Your task to perform on an android device: When is my next appointment? Image 0: 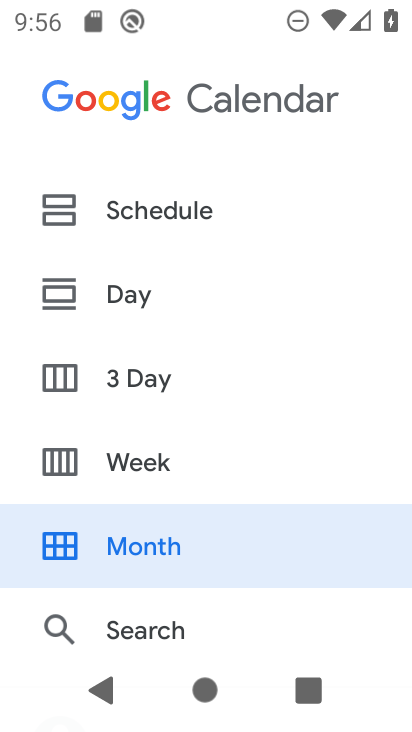
Step 0: press home button
Your task to perform on an android device: When is my next appointment? Image 1: 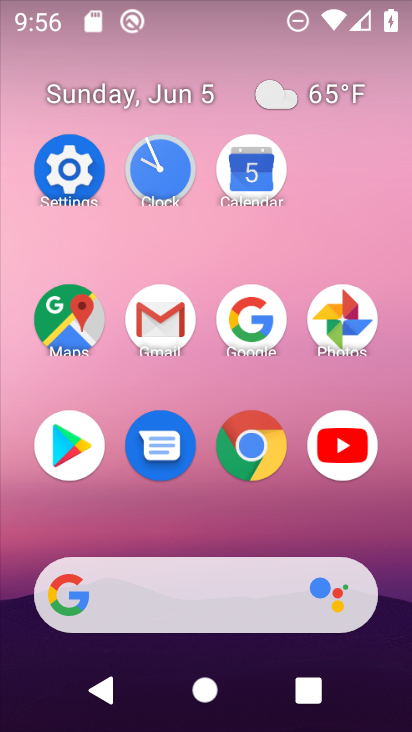
Step 1: click (268, 192)
Your task to perform on an android device: When is my next appointment? Image 2: 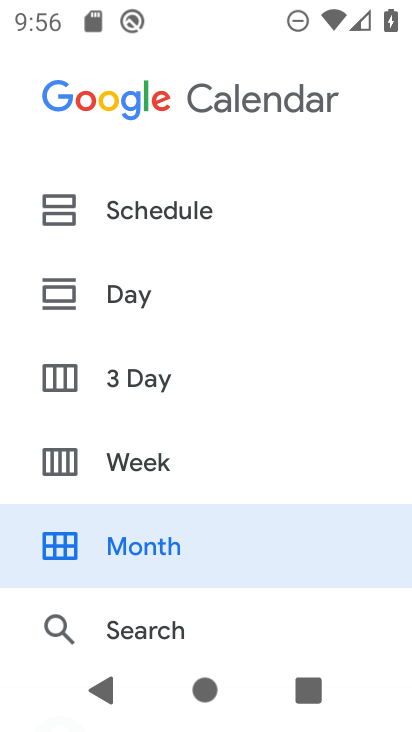
Step 2: click (240, 519)
Your task to perform on an android device: When is my next appointment? Image 3: 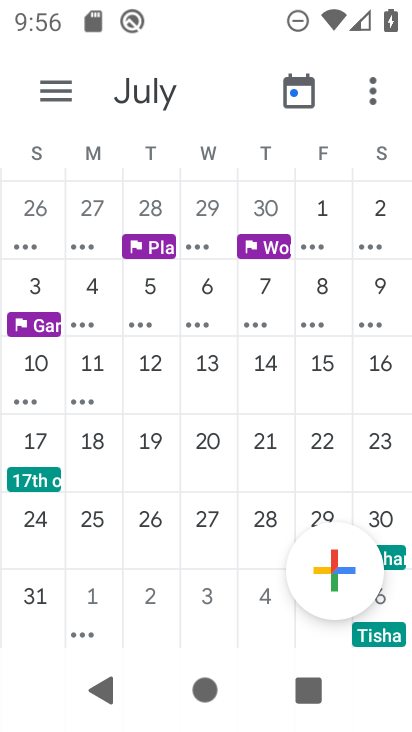
Step 3: click (148, 105)
Your task to perform on an android device: When is my next appointment? Image 4: 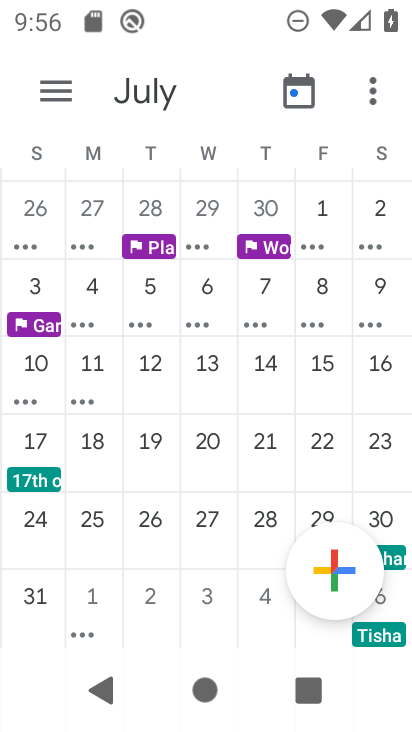
Step 4: click (121, 85)
Your task to perform on an android device: When is my next appointment? Image 5: 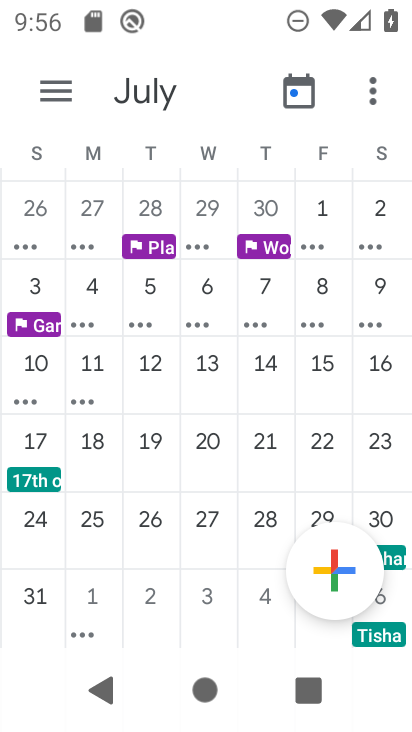
Step 5: drag from (35, 337) to (395, 374)
Your task to perform on an android device: When is my next appointment? Image 6: 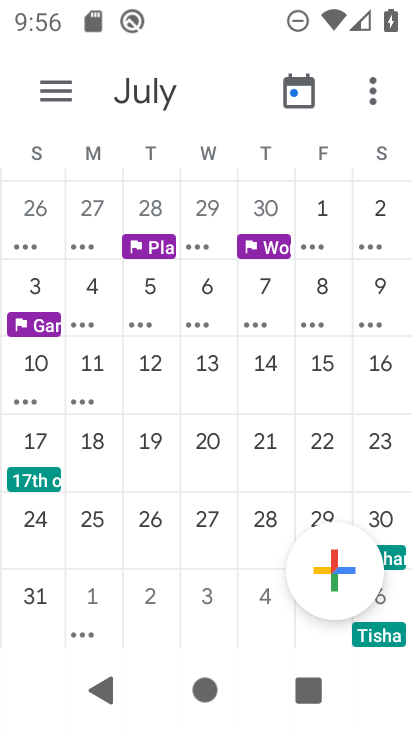
Step 6: drag from (226, 181) to (172, 712)
Your task to perform on an android device: When is my next appointment? Image 7: 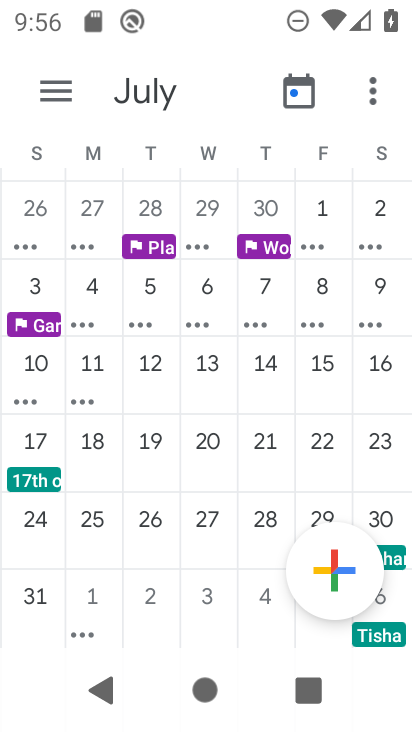
Step 7: drag from (48, 387) to (397, 361)
Your task to perform on an android device: When is my next appointment? Image 8: 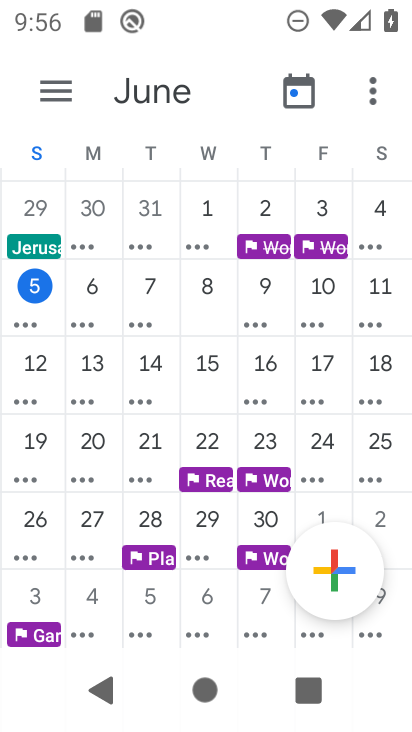
Step 8: click (87, 294)
Your task to perform on an android device: When is my next appointment? Image 9: 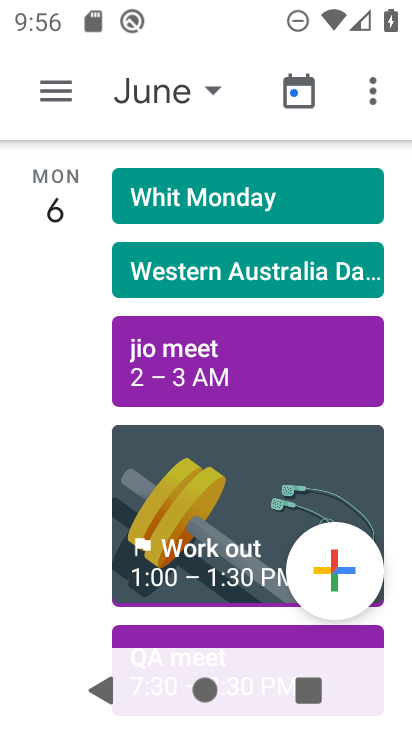
Step 9: task complete